Your task to perform on an android device: turn off airplane mode Image 0: 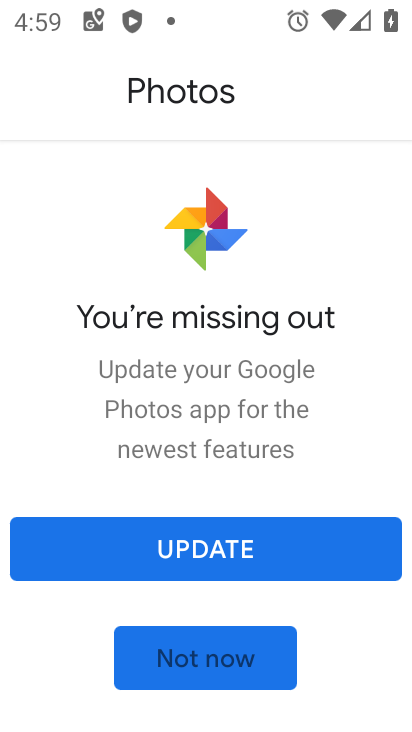
Step 0: press home button
Your task to perform on an android device: turn off airplane mode Image 1: 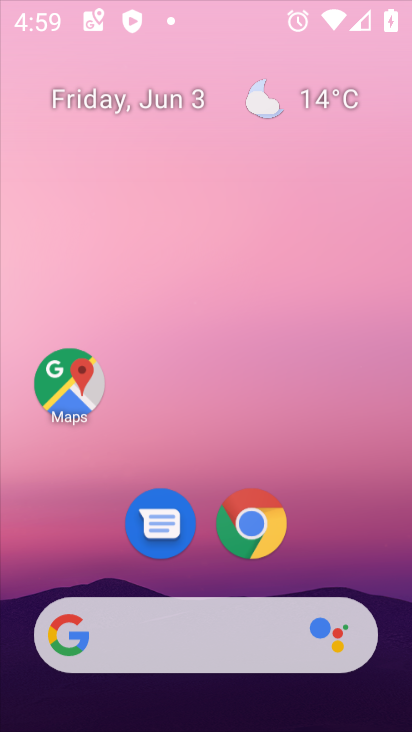
Step 1: drag from (236, 10) to (247, 239)
Your task to perform on an android device: turn off airplane mode Image 2: 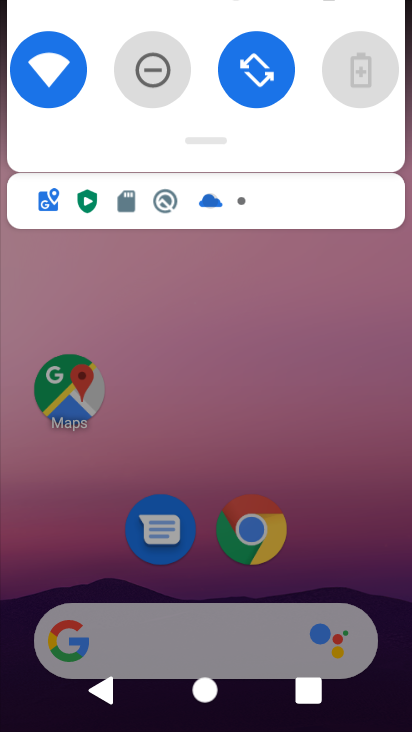
Step 2: click (226, 487)
Your task to perform on an android device: turn off airplane mode Image 3: 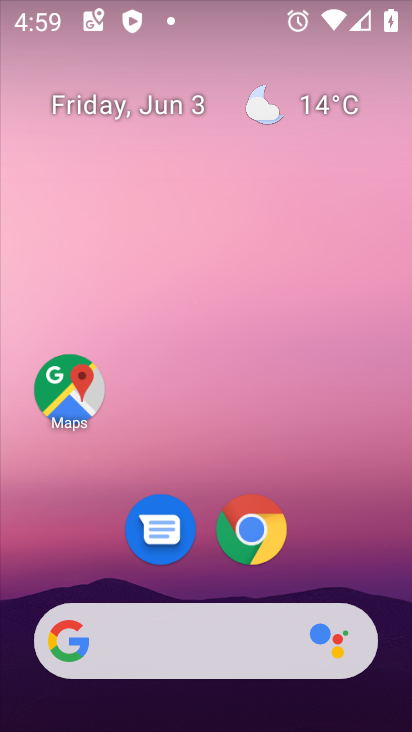
Step 3: task complete